Your task to perform on an android device: Open the phone app and click the voicemail tab. Image 0: 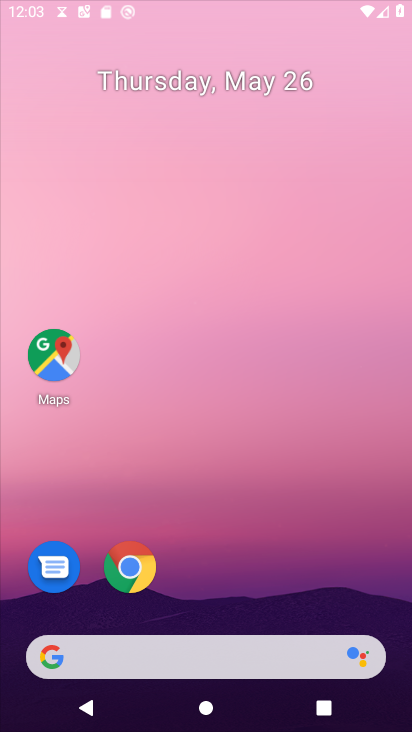
Step 0: drag from (208, 170) to (186, 11)
Your task to perform on an android device: Open the phone app and click the voicemail tab. Image 1: 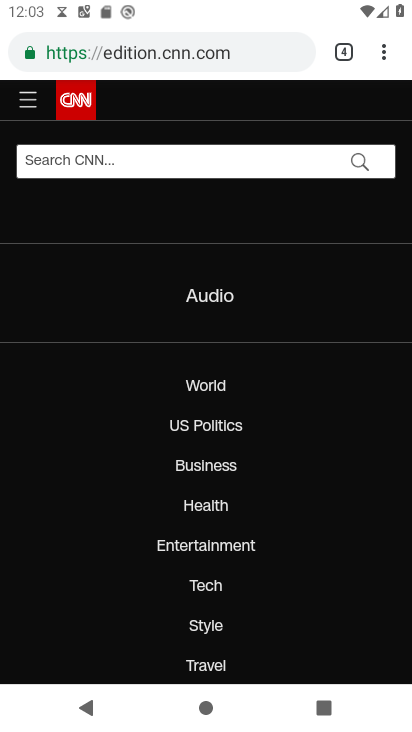
Step 1: press home button
Your task to perform on an android device: Open the phone app and click the voicemail tab. Image 2: 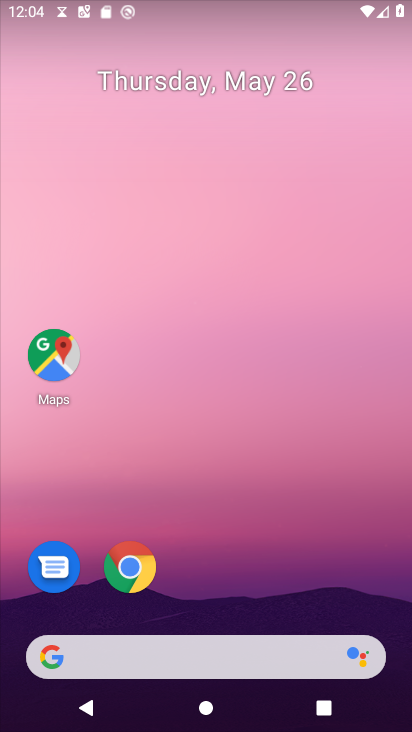
Step 2: drag from (210, 438) to (207, 4)
Your task to perform on an android device: Open the phone app and click the voicemail tab. Image 3: 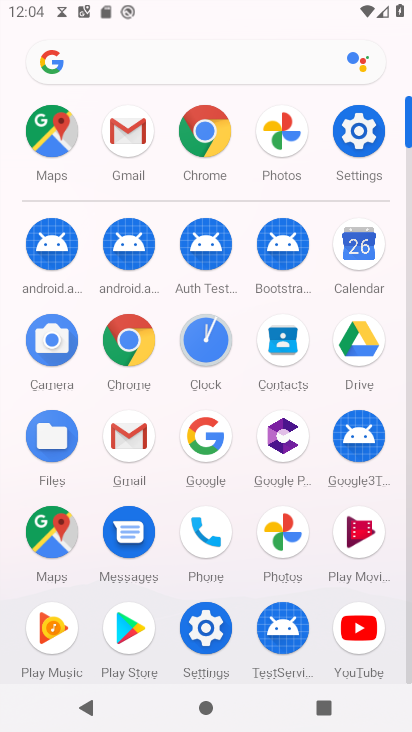
Step 3: click (200, 541)
Your task to perform on an android device: Open the phone app and click the voicemail tab. Image 4: 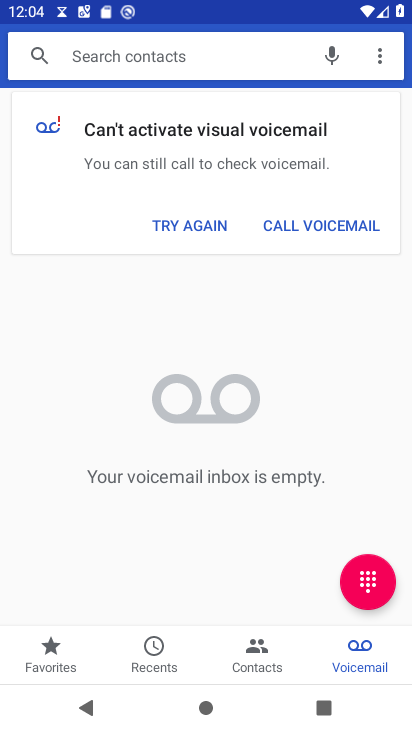
Step 4: click (359, 651)
Your task to perform on an android device: Open the phone app and click the voicemail tab. Image 5: 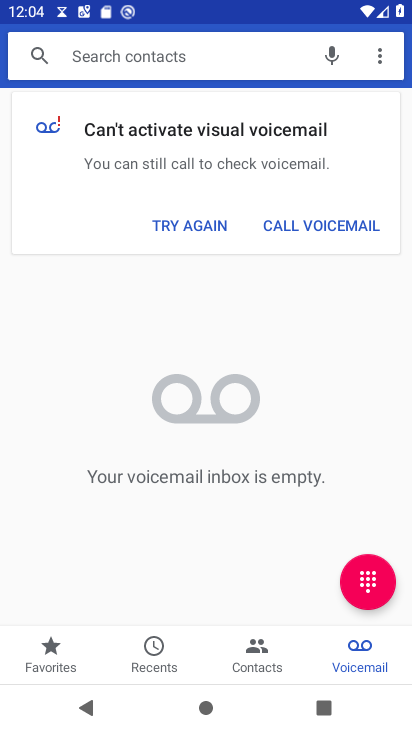
Step 5: task complete